Your task to perform on an android device: Open Wikipedia Image 0: 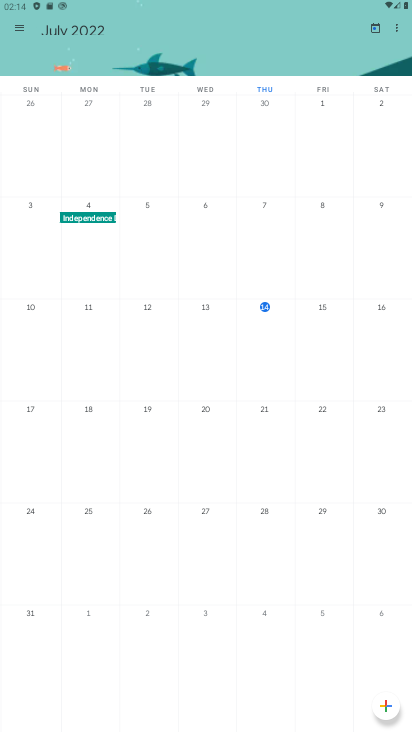
Step 0: press home button
Your task to perform on an android device: Open Wikipedia Image 1: 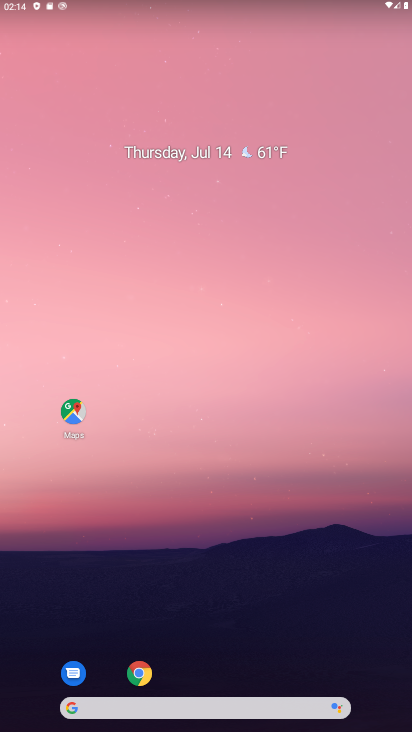
Step 1: drag from (254, 661) to (235, 346)
Your task to perform on an android device: Open Wikipedia Image 2: 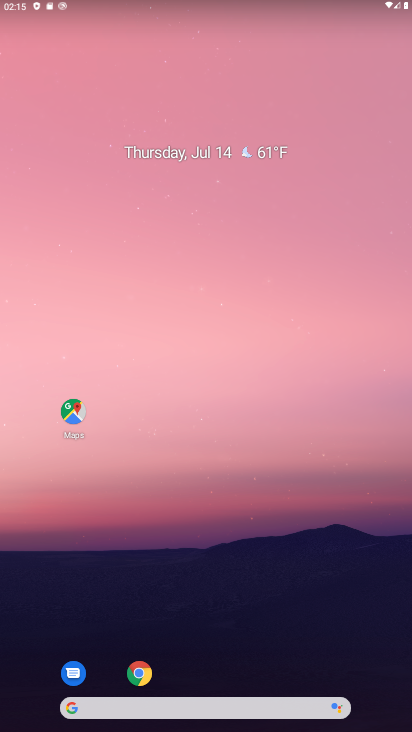
Step 2: click (146, 669)
Your task to perform on an android device: Open Wikipedia Image 3: 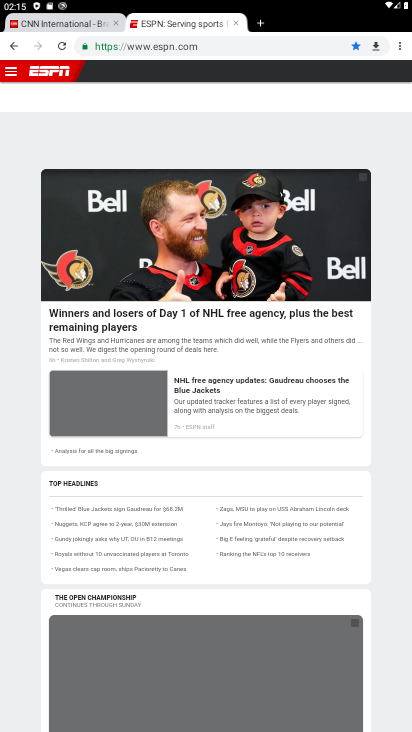
Step 3: click (262, 12)
Your task to perform on an android device: Open Wikipedia Image 4: 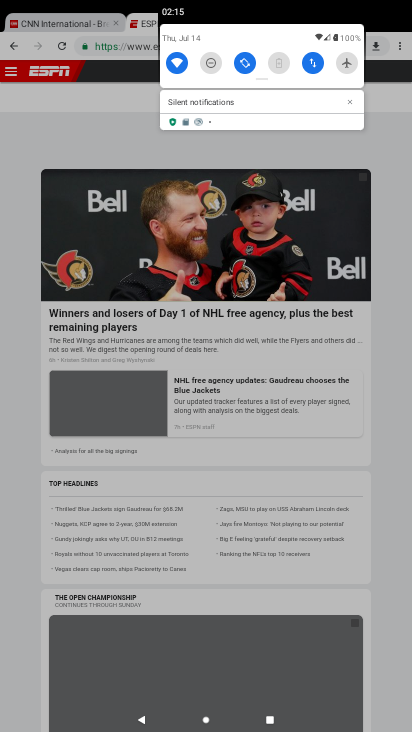
Step 4: click (262, 28)
Your task to perform on an android device: Open Wikipedia Image 5: 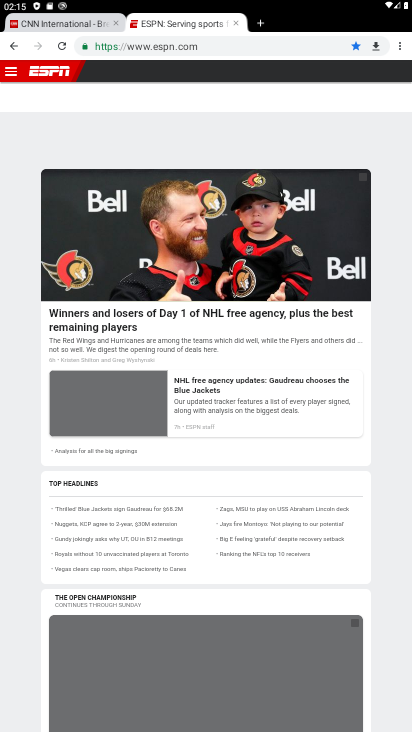
Step 5: click (256, 26)
Your task to perform on an android device: Open Wikipedia Image 6: 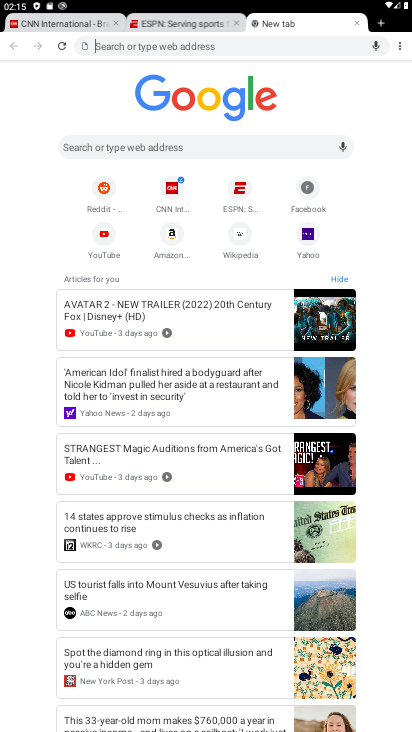
Step 6: click (237, 238)
Your task to perform on an android device: Open Wikipedia Image 7: 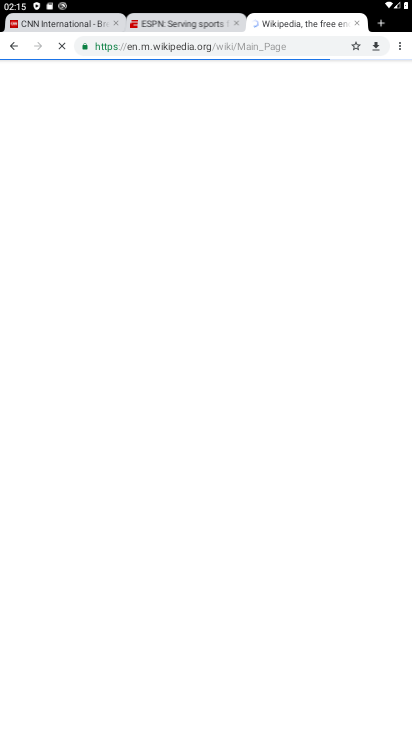
Step 7: task complete